Your task to perform on an android device: change the clock display to show seconds Image 0: 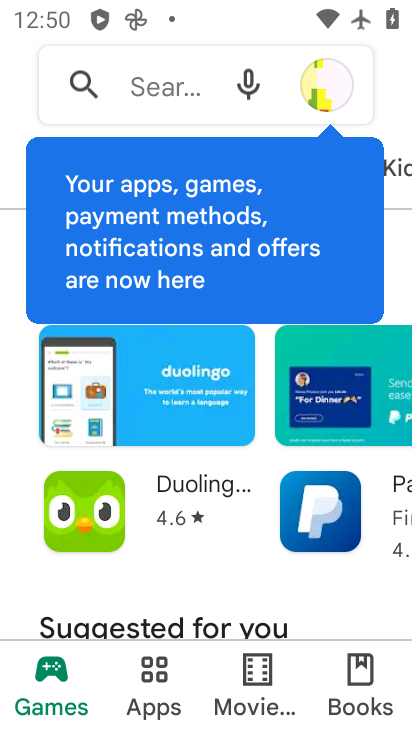
Step 0: press home button
Your task to perform on an android device: change the clock display to show seconds Image 1: 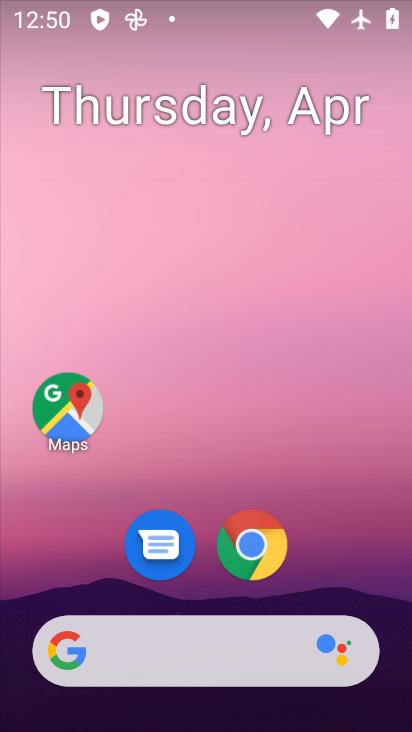
Step 1: drag from (350, 502) to (303, 60)
Your task to perform on an android device: change the clock display to show seconds Image 2: 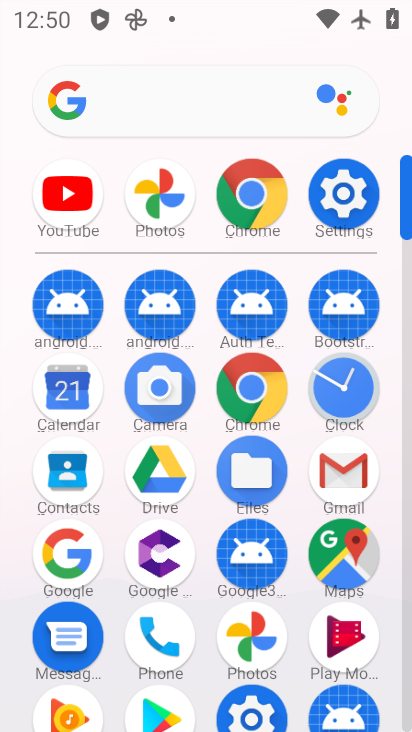
Step 2: click (354, 394)
Your task to perform on an android device: change the clock display to show seconds Image 3: 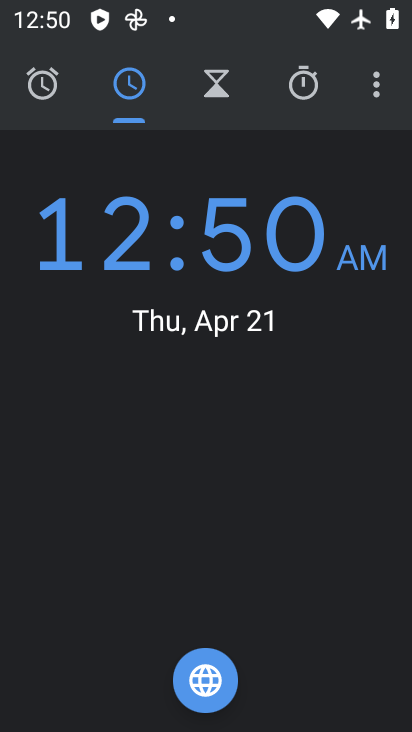
Step 3: click (371, 87)
Your task to perform on an android device: change the clock display to show seconds Image 4: 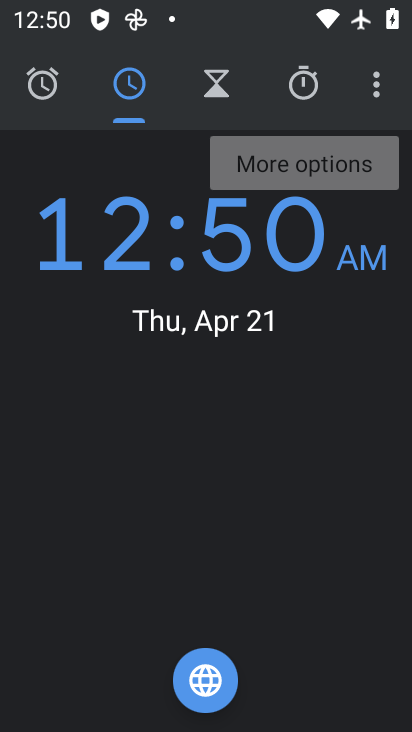
Step 4: click (303, 151)
Your task to perform on an android device: change the clock display to show seconds Image 5: 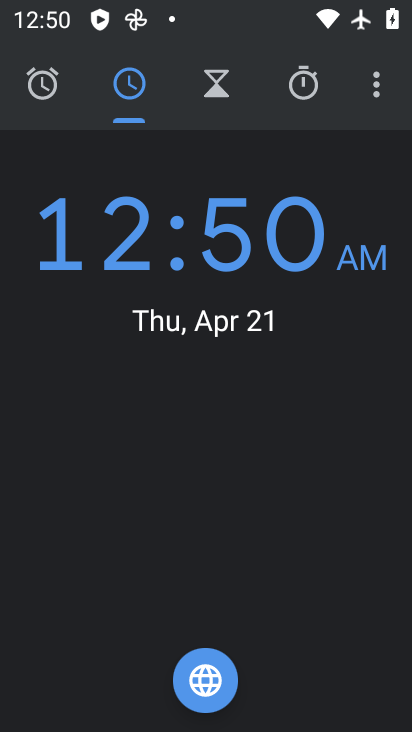
Step 5: click (380, 84)
Your task to perform on an android device: change the clock display to show seconds Image 6: 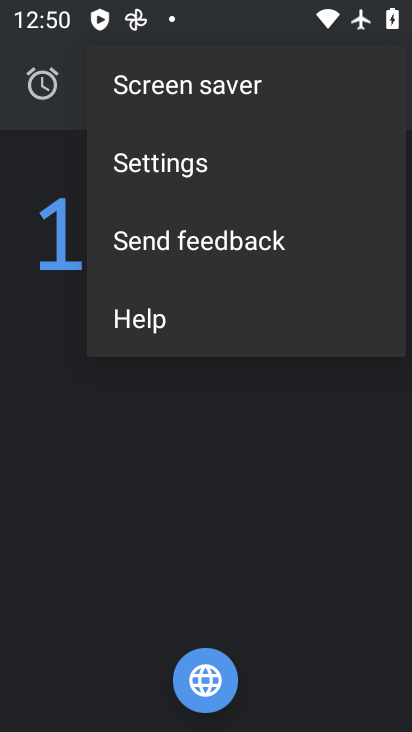
Step 6: click (207, 174)
Your task to perform on an android device: change the clock display to show seconds Image 7: 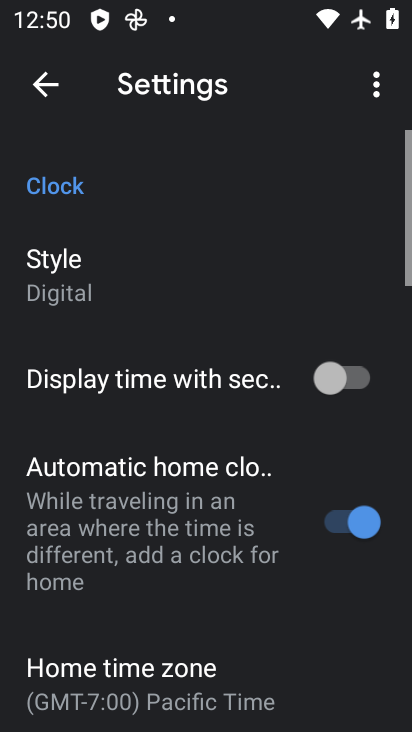
Step 7: click (289, 358)
Your task to perform on an android device: change the clock display to show seconds Image 8: 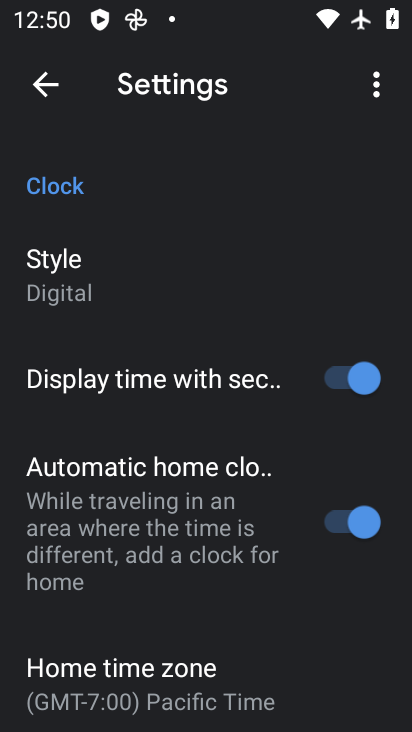
Step 8: task complete